Your task to perform on an android device: Search for seafood restaurants on Google Maps Image 0: 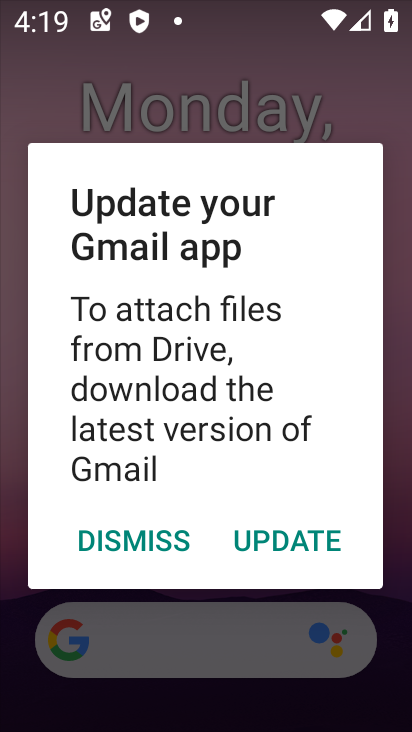
Step 0: press home button
Your task to perform on an android device: Search for seafood restaurants on Google Maps Image 1: 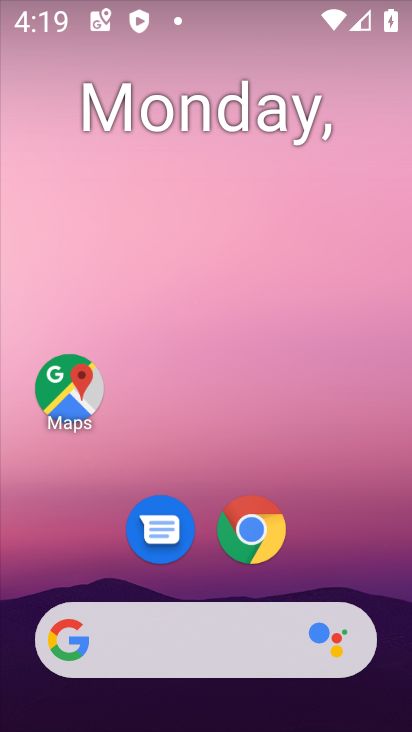
Step 1: drag from (191, 700) to (181, 153)
Your task to perform on an android device: Search for seafood restaurants on Google Maps Image 2: 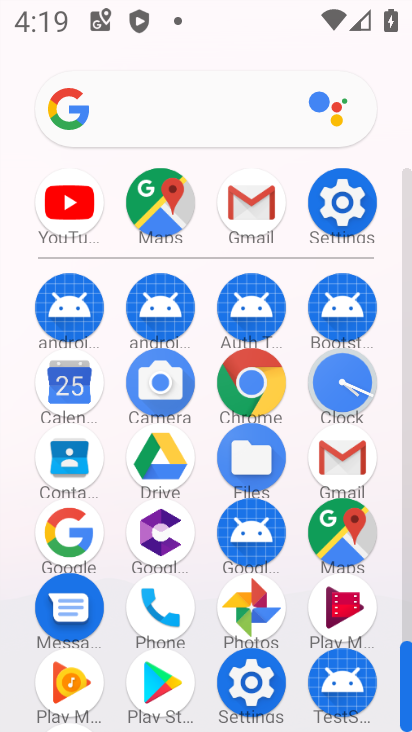
Step 2: click (347, 524)
Your task to perform on an android device: Search for seafood restaurants on Google Maps Image 3: 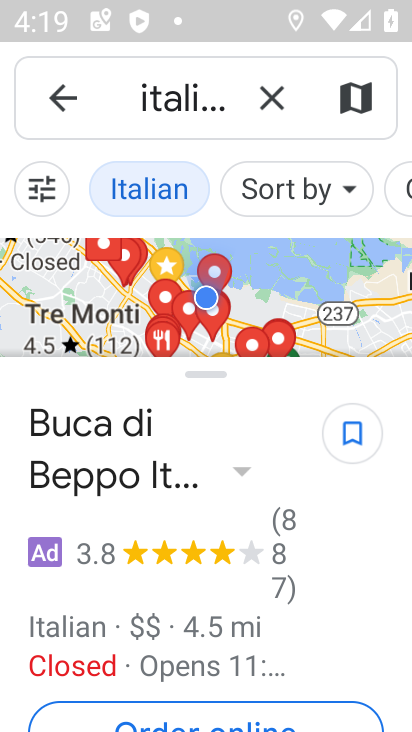
Step 3: click (265, 94)
Your task to perform on an android device: Search for seafood restaurants on Google Maps Image 4: 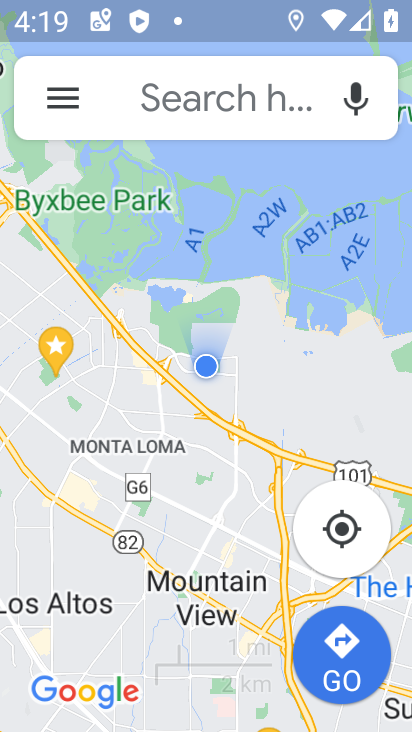
Step 4: click (179, 105)
Your task to perform on an android device: Search for seafood restaurants on Google Maps Image 5: 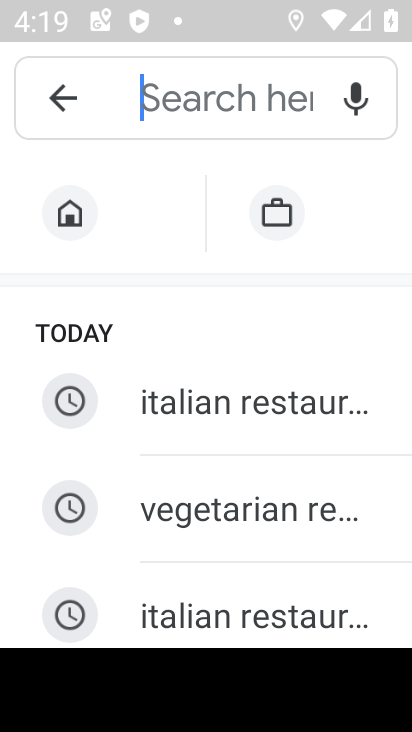
Step 5: type "seafood restaurants"
Your task to perform on an android device: Search for seafood restaurants on Google Maps Image 6: 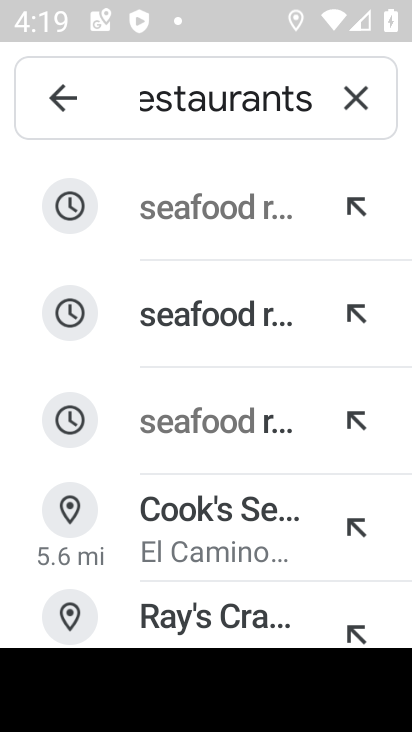
Step 6: click (197, 209)
Your task to perform on an android device: Search for seafood restaurants on Google Maps Image 7: 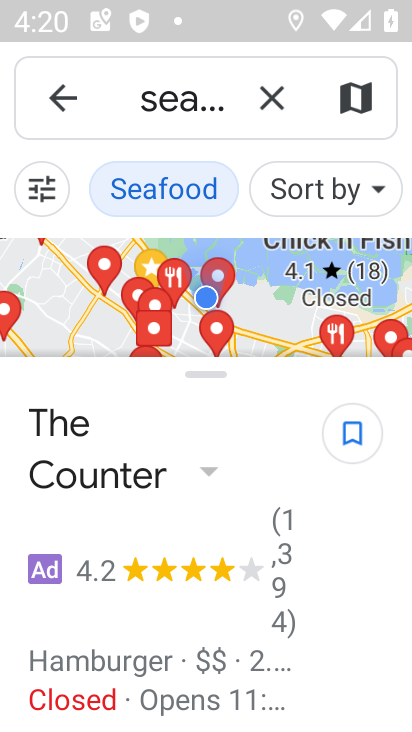
Step 7: task complete